Your task to perform on an android device: Go to wifi settings Image 0: 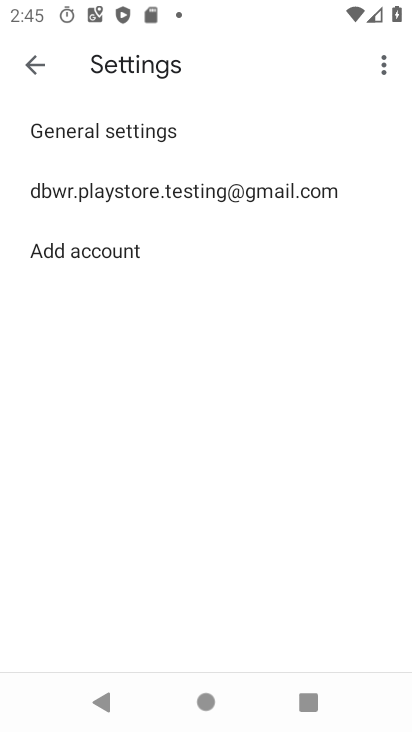
Step 0: press home button
Your task to perform on an android device: Go to wifi settings Image 1: 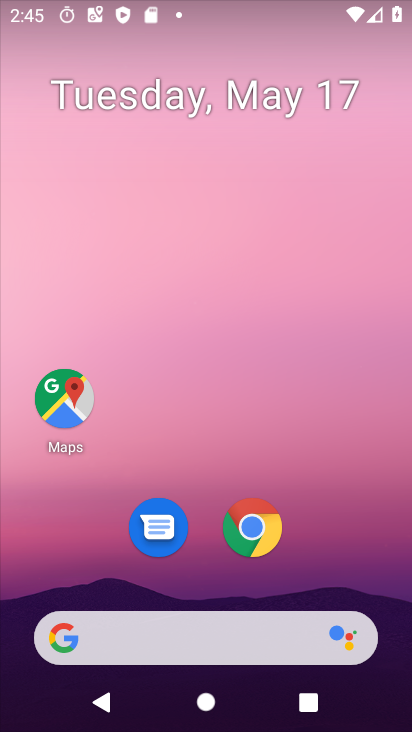
Step 1: drag from (256, 687) to (202, 308)
Your task to perform on an android device: Go to wifi settings Image 2: 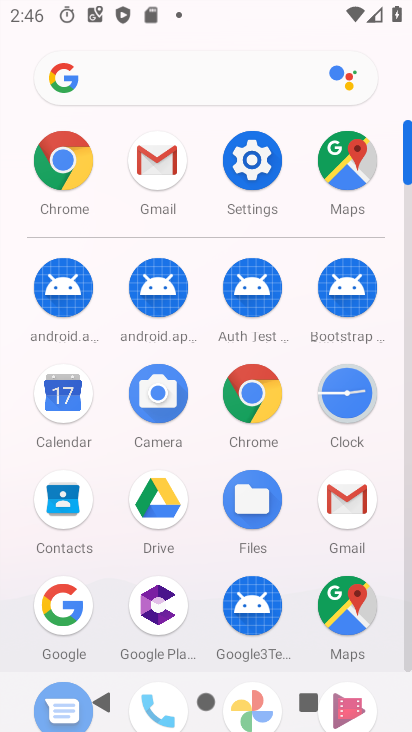
Step 2: click (268, 167)
Your task to perform on an android device: Go to wifi settings Image 3: 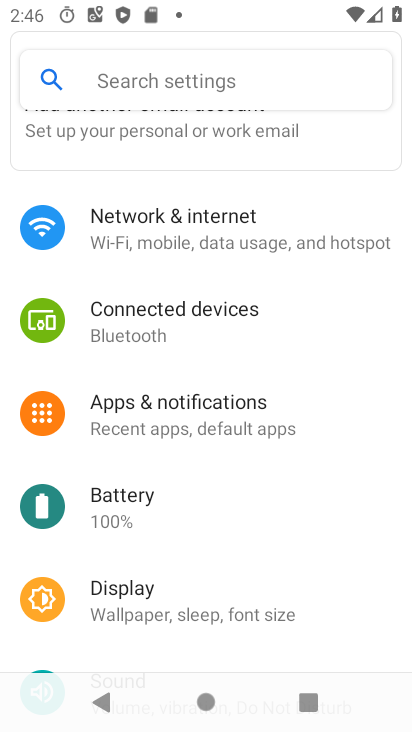
Step 3: click (200, 225)
Your task to perform on an android device: Go to wifi settings Image 4: 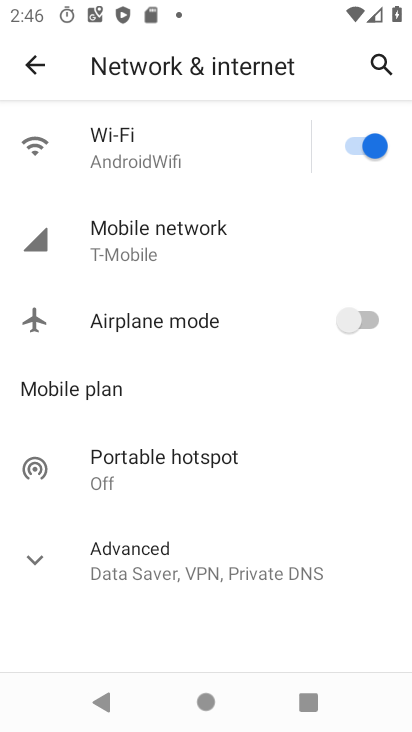
Step 4: click (210, 147)
Your task to perform on an android device: Go to wifi settings Image 5: 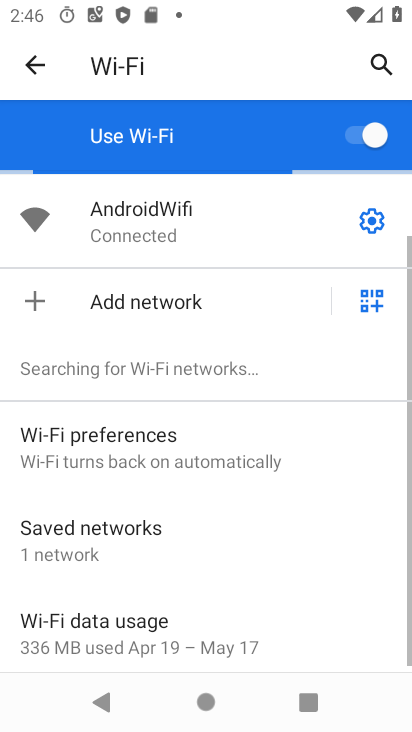
Step 5: task complete